Your task to perform on an android device: Go to Google maps Image 0: 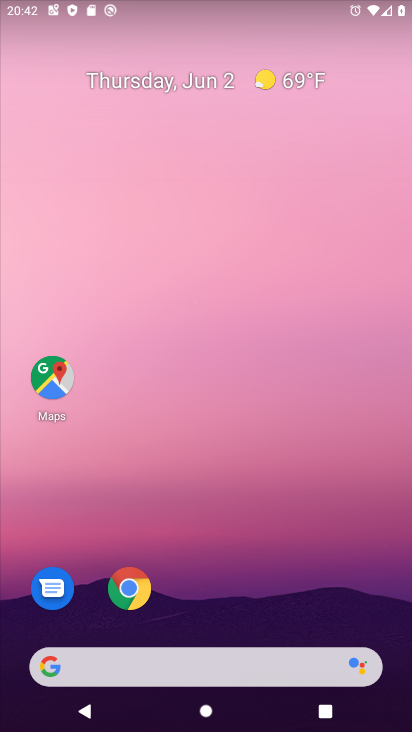
Step 0: drag from (231, 726) to (233, 124)
Your task to perform on an android device: Go to Google maps Image 1: 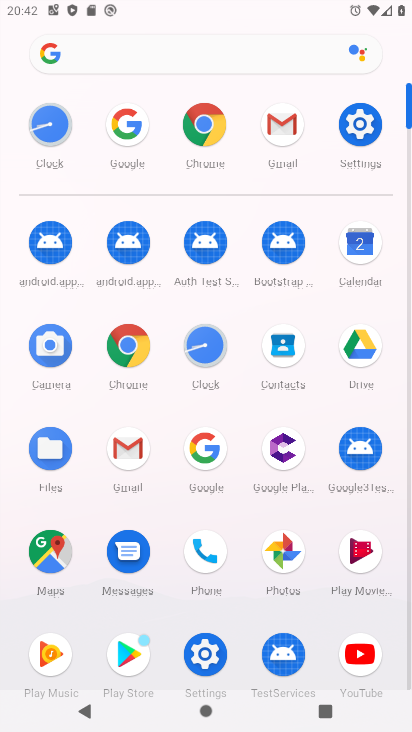
Step 1: click (48, 568)
Your task to perform on an android device: Go to Google maps Image 2: 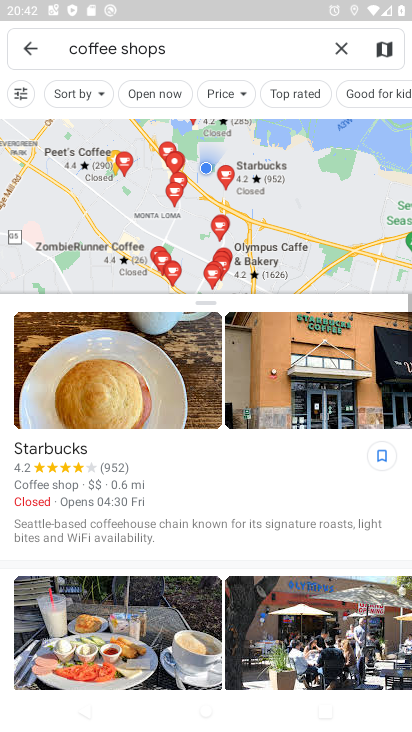
Step 2: task complete